Your task to perform on an android device: turn off improve location accuracy Image 0: 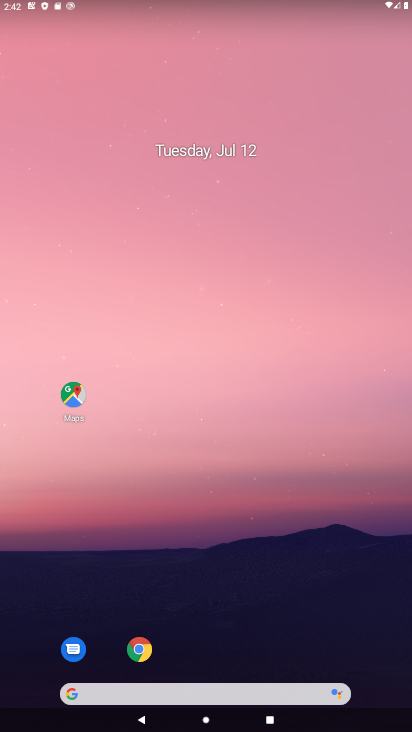
Step 0: drag from (281, 650) to (139, 50)
Your task to perform on an android device: turn off improve location accuracy Image 1: 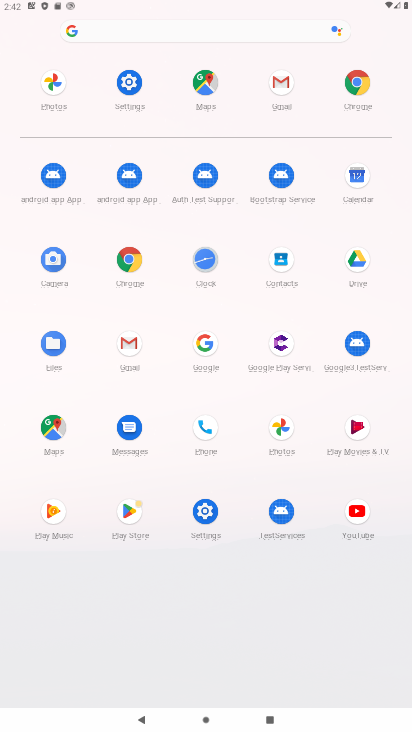
Step 1: click (136, 86)
Your task to perform on an android device: turn off improve location accuracy Image 2: 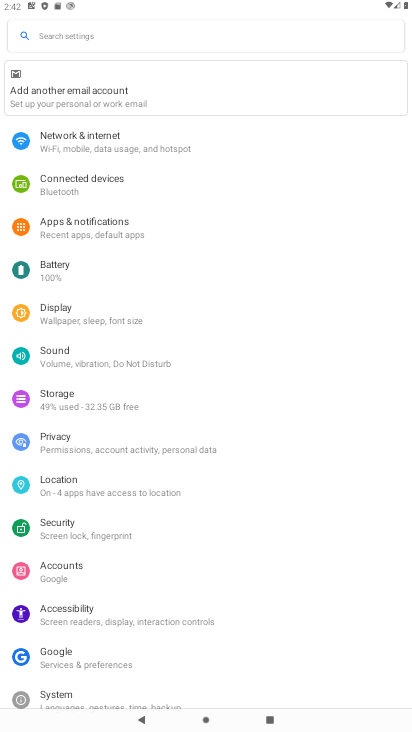
Step 2: click (111, 500)
Your task to perform on an android device: turn off improve location accuracy Image 3: 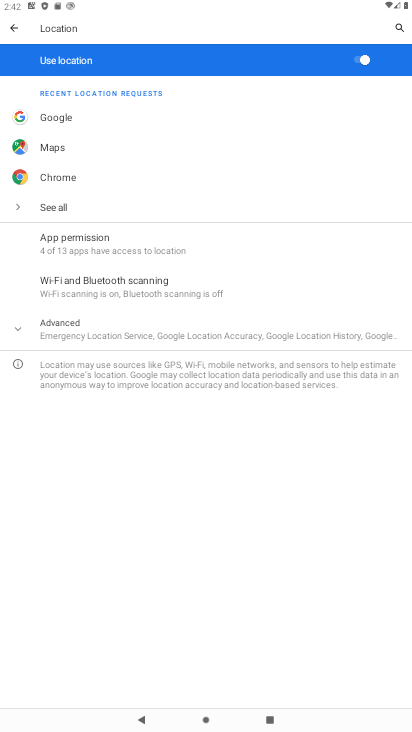
Step 3: click (101, 322)
Your task to perform on an android device: turn off improve location accuracy Image 4: 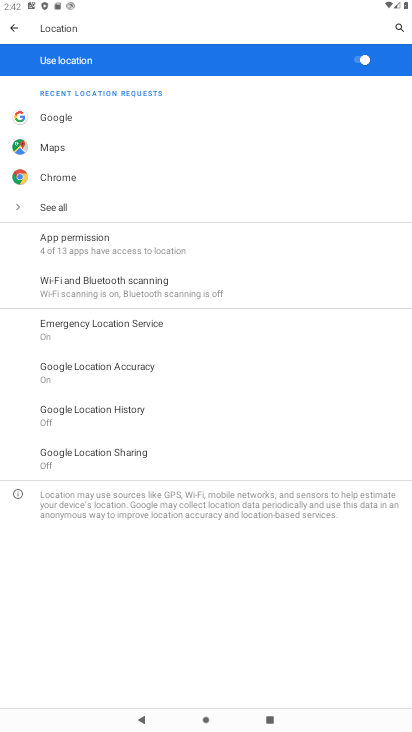
Step 4: task complete